Your task to perform on an android device: open app "Skype" Image 0: 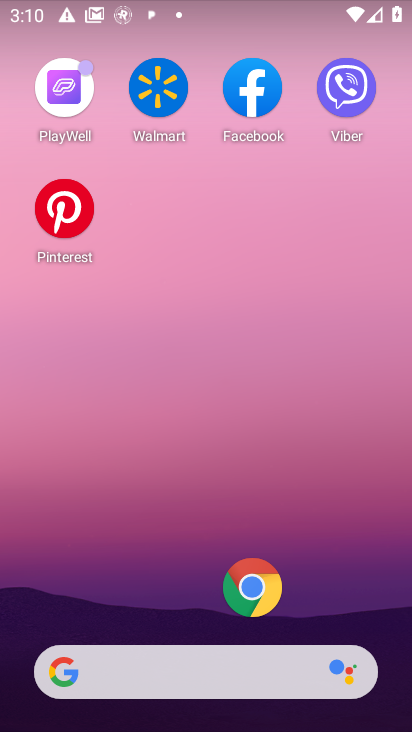
Step 0: drag from (180, 601) to (185, 163)
Your task to perform on an android device: open app "Skype" Image 1: 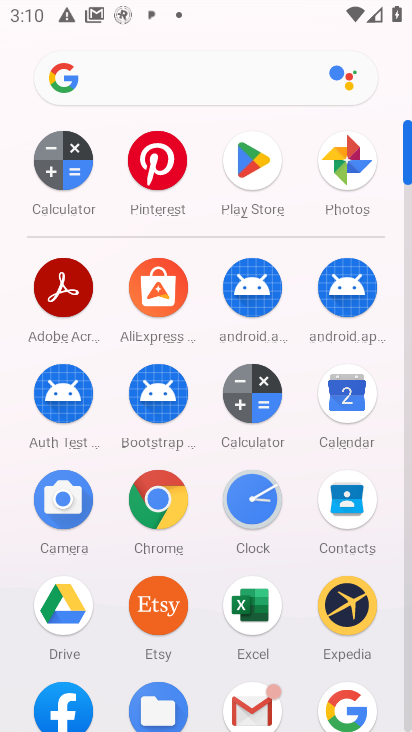
Step 1: click (228, 163)
Your task to perform on an android device: open app "Skype" Image 2: 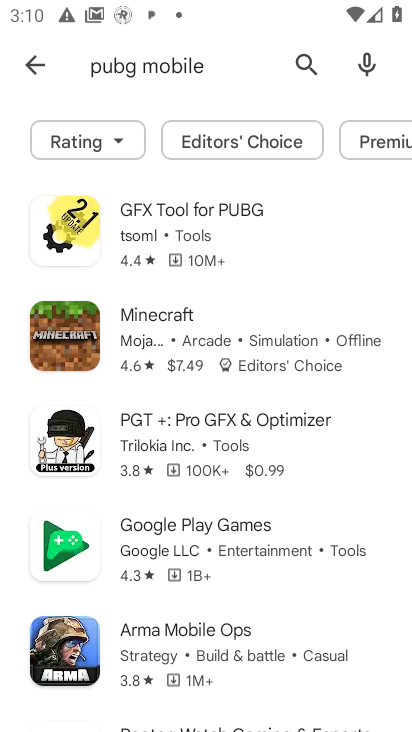
Step 2: click (294, 62)
Your task to perform on an android device: open app "Skype" Image 3: 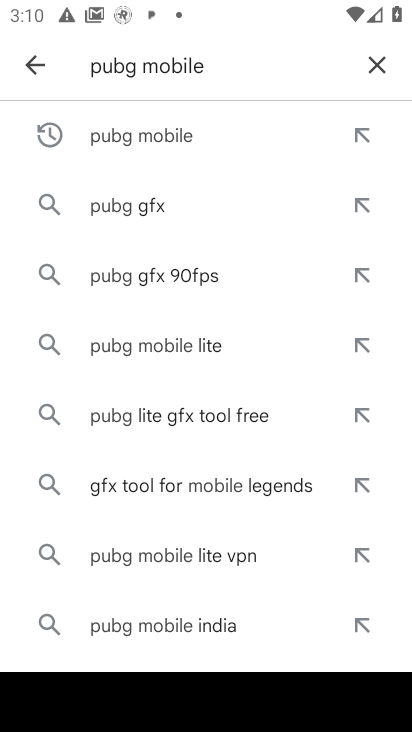
Step 3: click (373, 54)
Your task to perform on an android device: open app "Skype" Image 4: 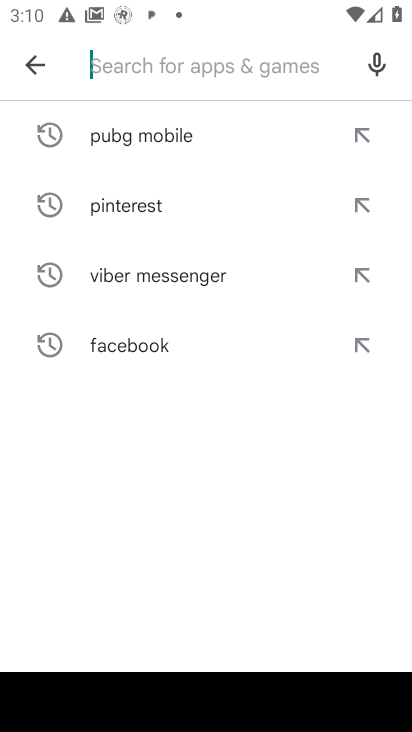
Step 4: type "Skype"
Your task to perform on an android device: open app "Skype" Image 5: 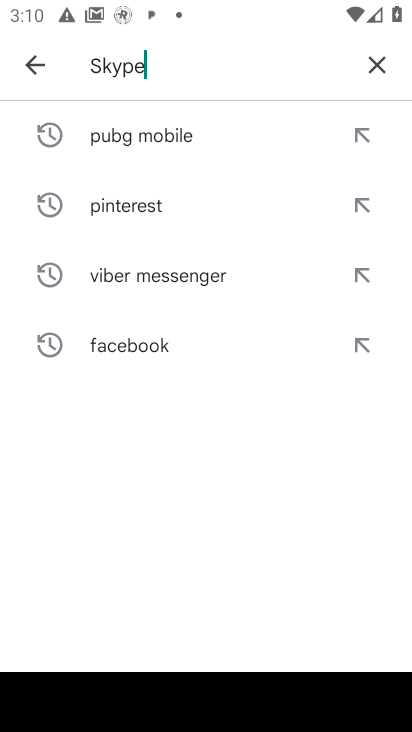
Step 5: type ""
Your task to perform on an android device: open app "Skype" Image 6: 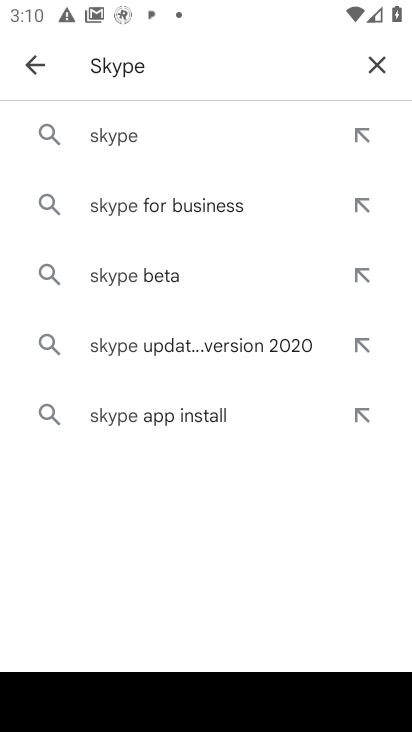
Step 6: click (196, 126)
Your task to perform on an android device: open app "Skype" Image 7: 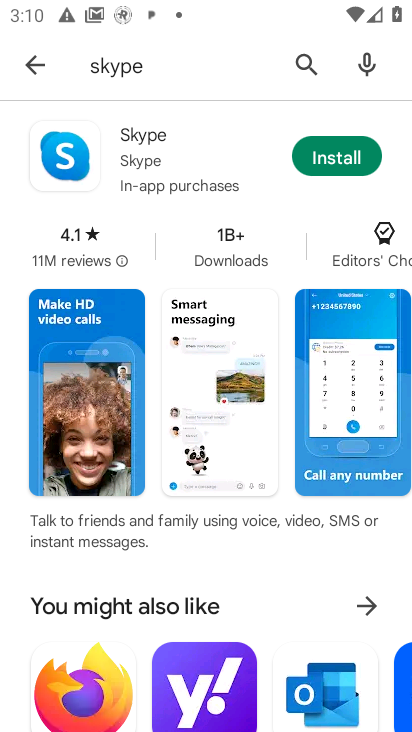
Step 7: task complete